Your task to perform on an android device: allow notifications from all sites in the chrome app Image 0: 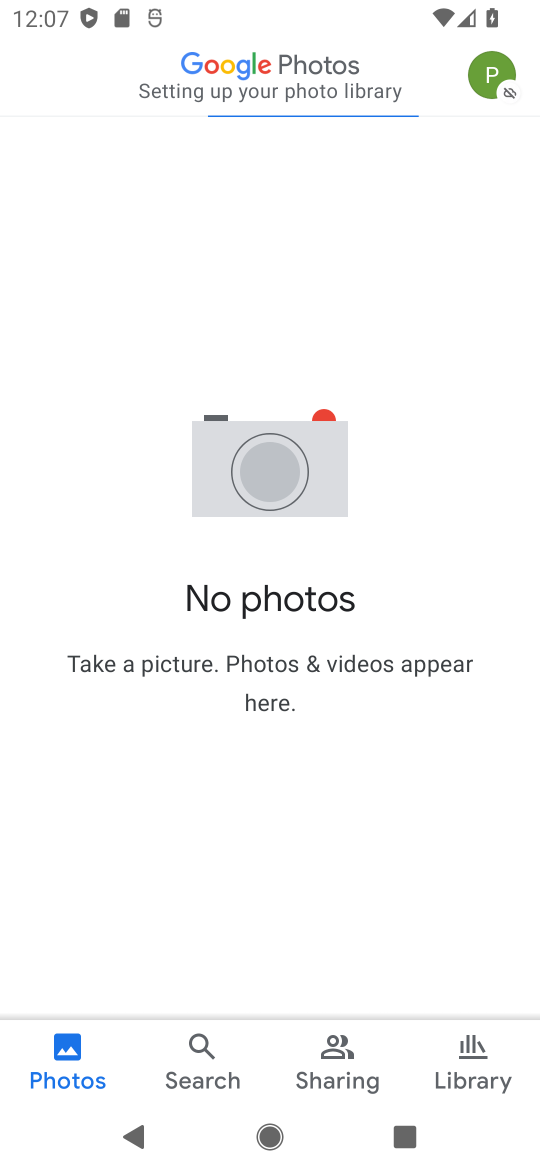
Step 0: press home button
Your task to perform on an android device: allow notifications from all sites in the chrome app Image 1: 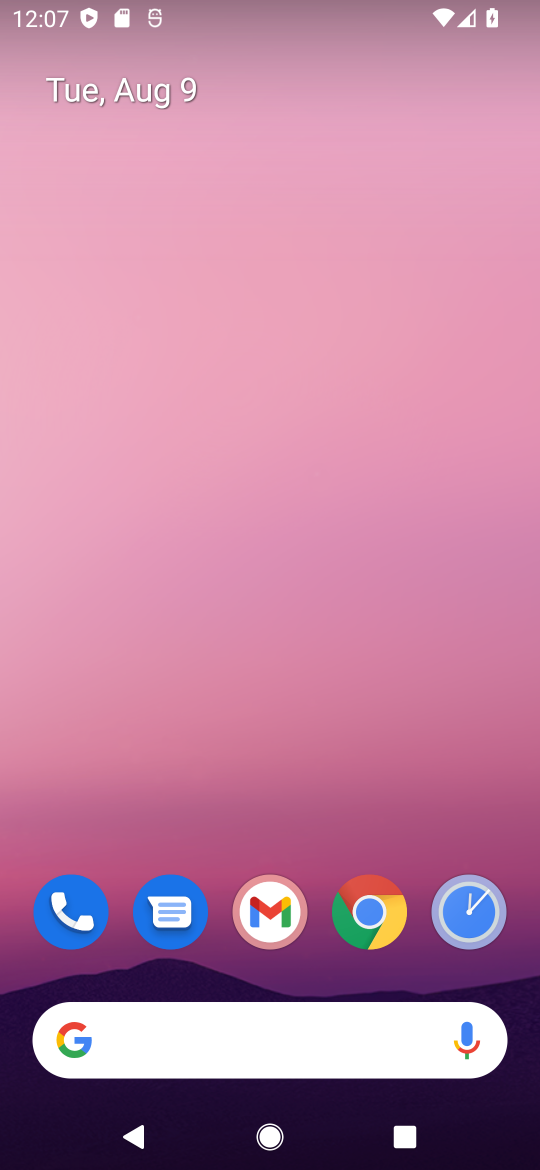
Step 1: drag from (317, 1012) to (315, 401)
Your task to perform on an android device: allow notifications from all sites in the chrome app Image 2: 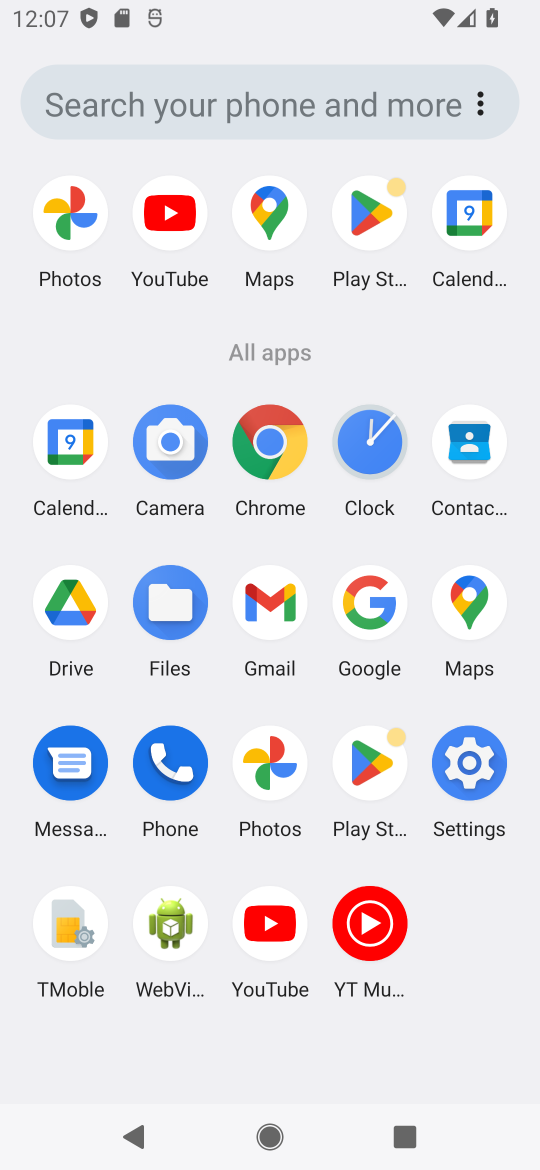
Step 2: click (282, 447)
Your task to perform on an android device: allow notifications from all sites in the chrome app Image 3: 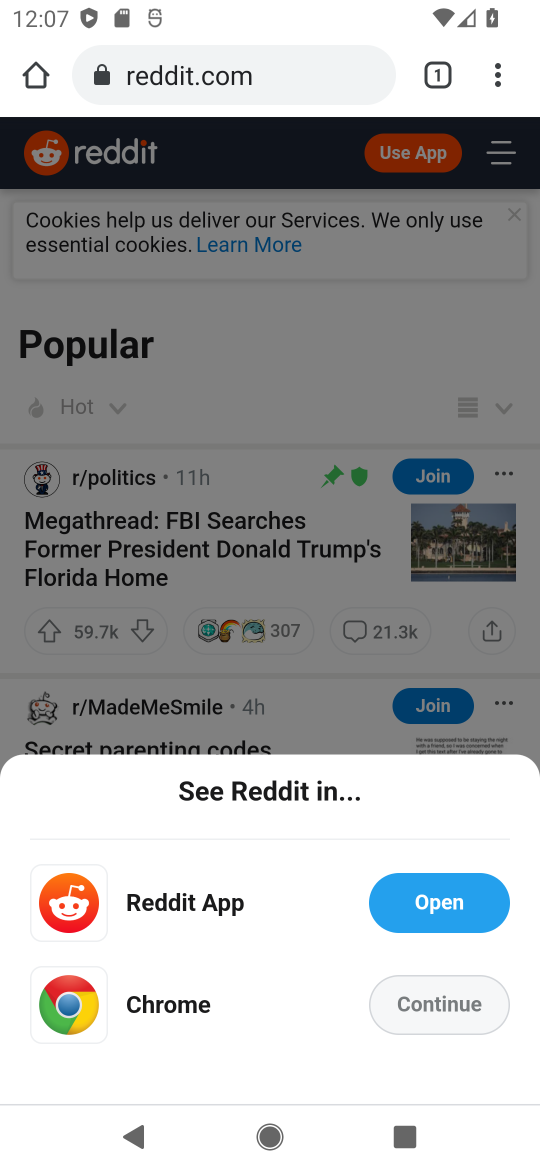
Step 3: click (495, 72)
Your task to perform on an android device: allow notifications from all sites in the chrome app Image 4: 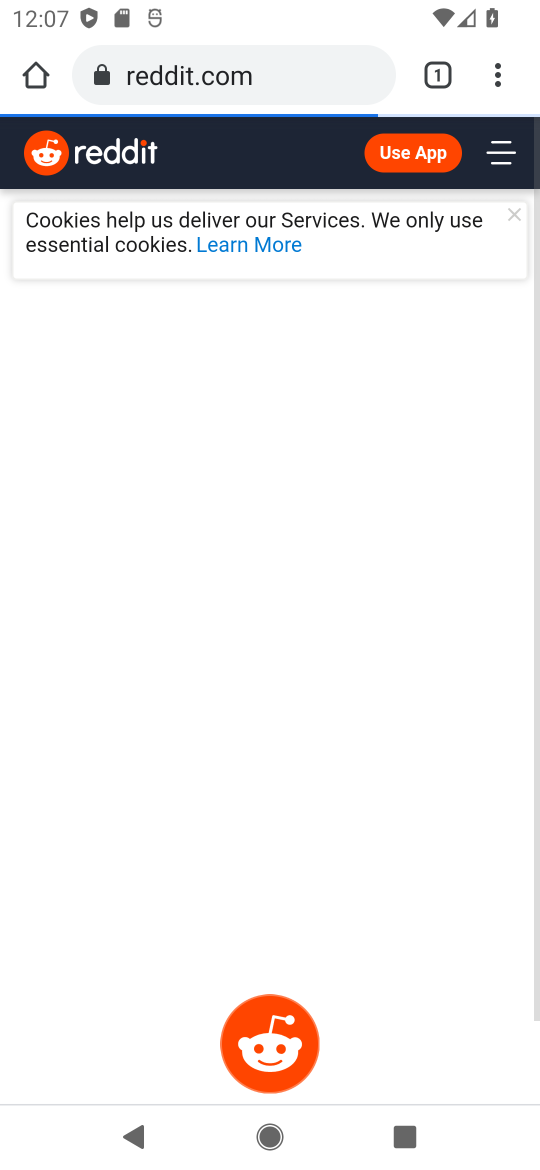
Step 4: click (501, 90)
Your task to perform on an android device: allow notifications from all sites in the chrome app Image 5: 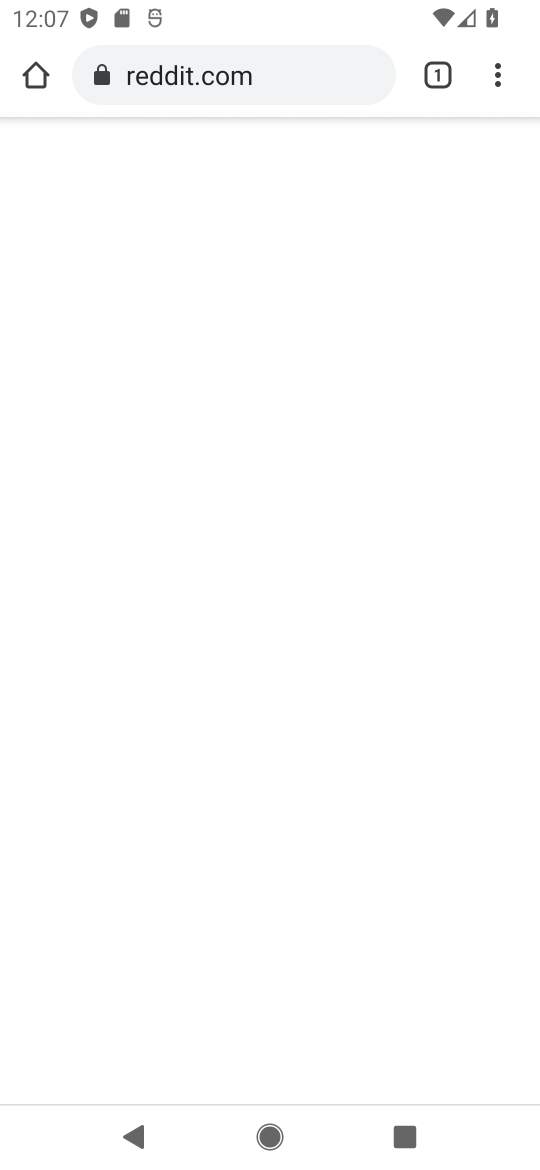
Step 5: click (489, 78)
Your task to perform on an android device: allow notifications from all sites in the chrome app Image 6: 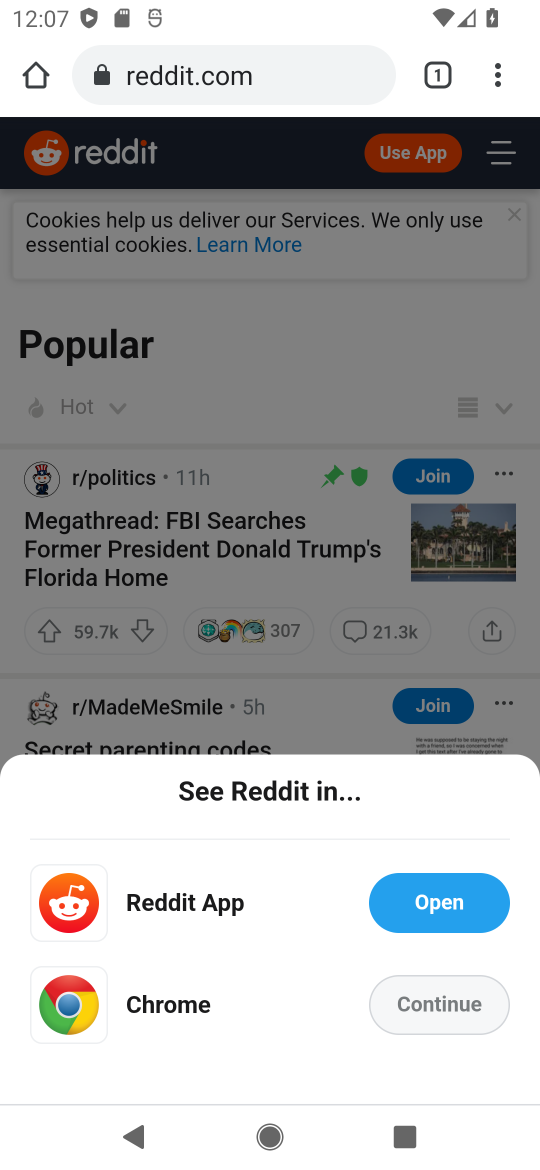
Step 6: click (502, 74)
Your task to perform on an android device: allow notifications from all sites in the chrome app Image 7: 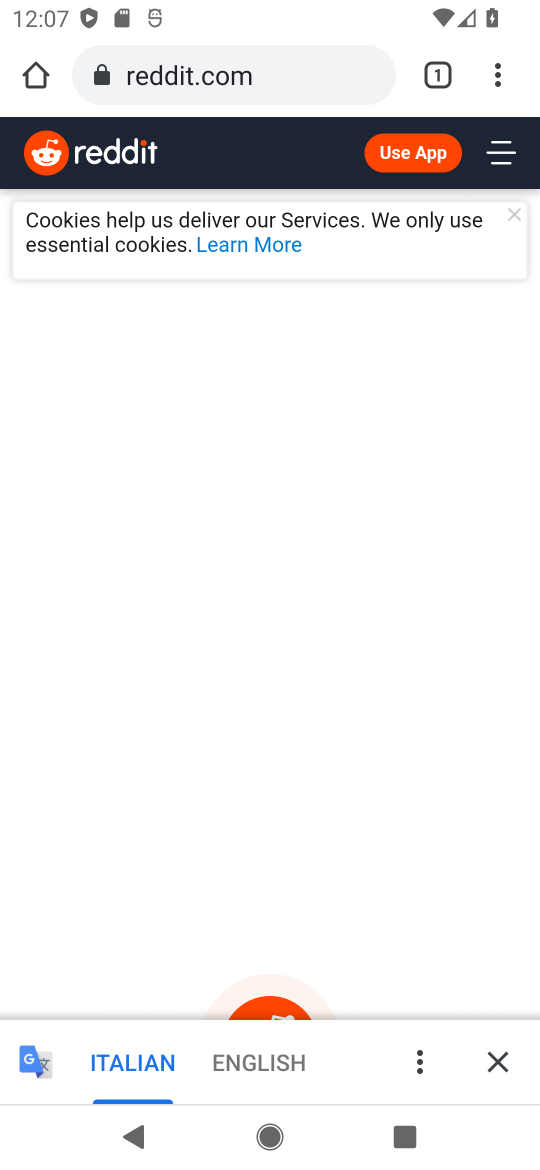
Step 7: click (495, 73)
Your task to perform on an android device: allow notifications from all sites in the chrome app Image 8: 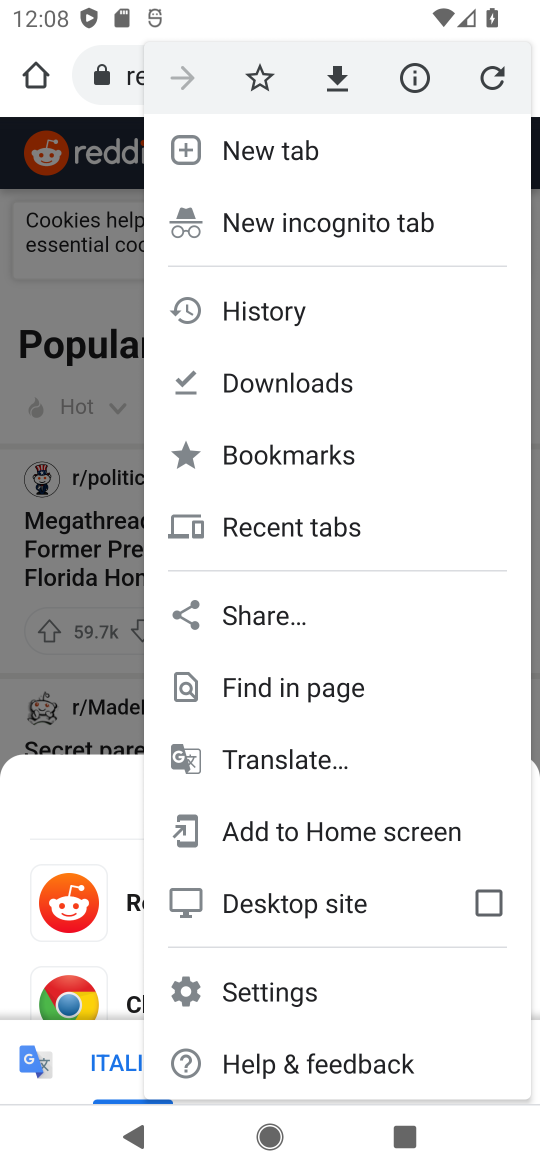
Step 8: click (287, 987)
Your task to perform on an android device: allow notifications from all sites in the chrome app Image 9: 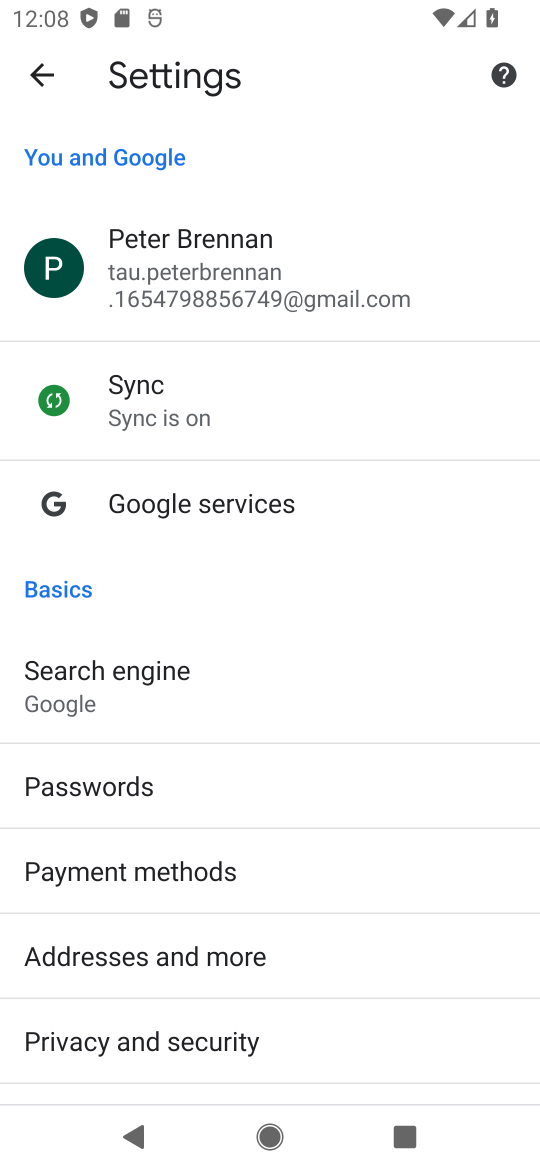
Step 9: drag from (232, 1047) to (288, 321)
Your task to perform on an android device: allow notifications from all sites in the chrome app Image 10: 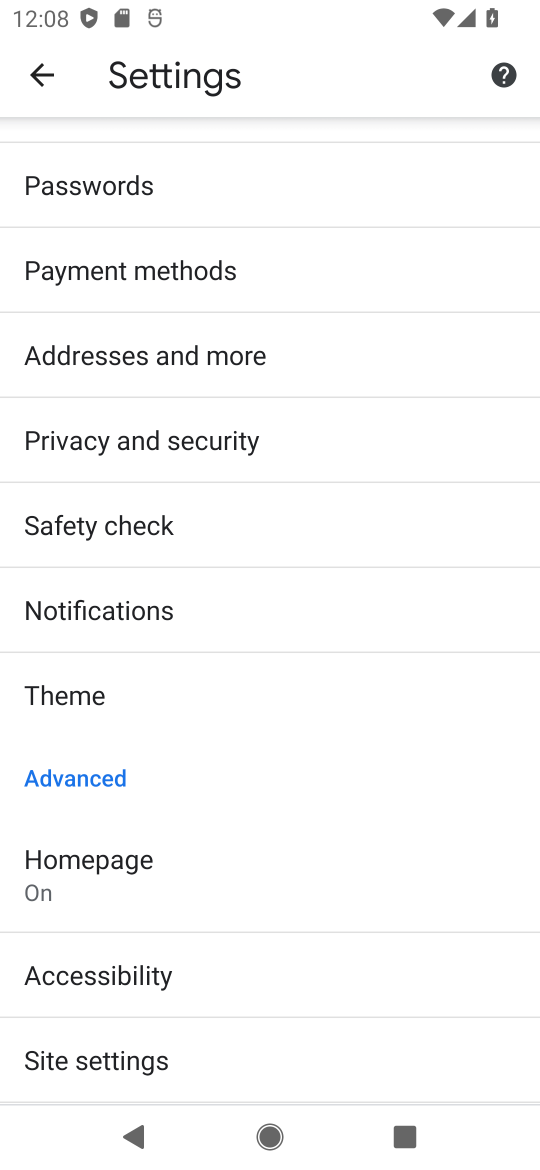
Step 10: click (112, 1055)
Your task to perform on an android device: allow notifications from all sites in the chrome app Image 11: 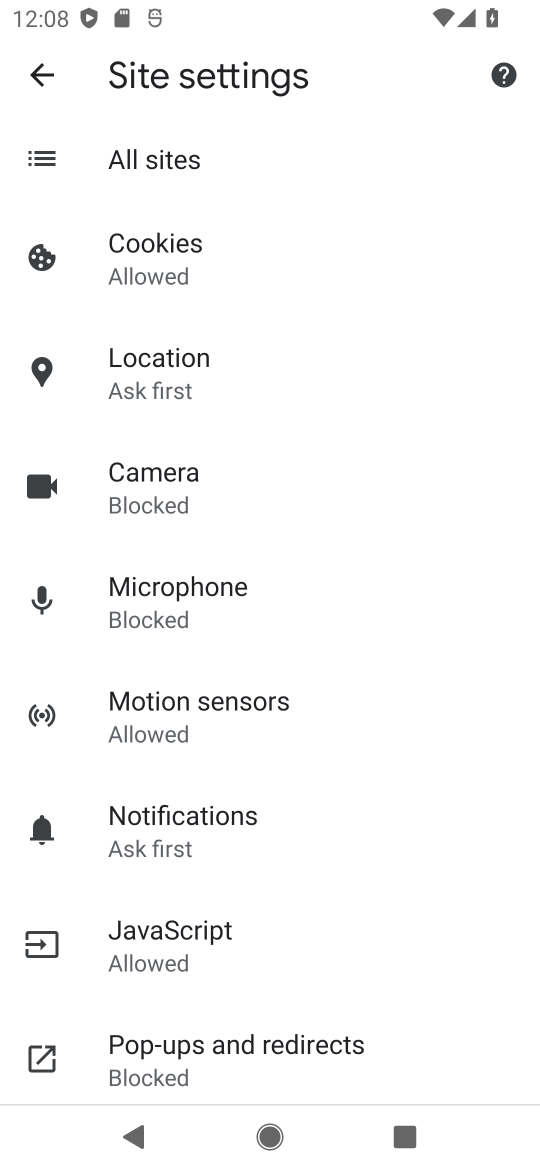
Step 11: click (139, 827)
Your task to perform on an android device: allow notifications from all sites in the chrome app Image 12: 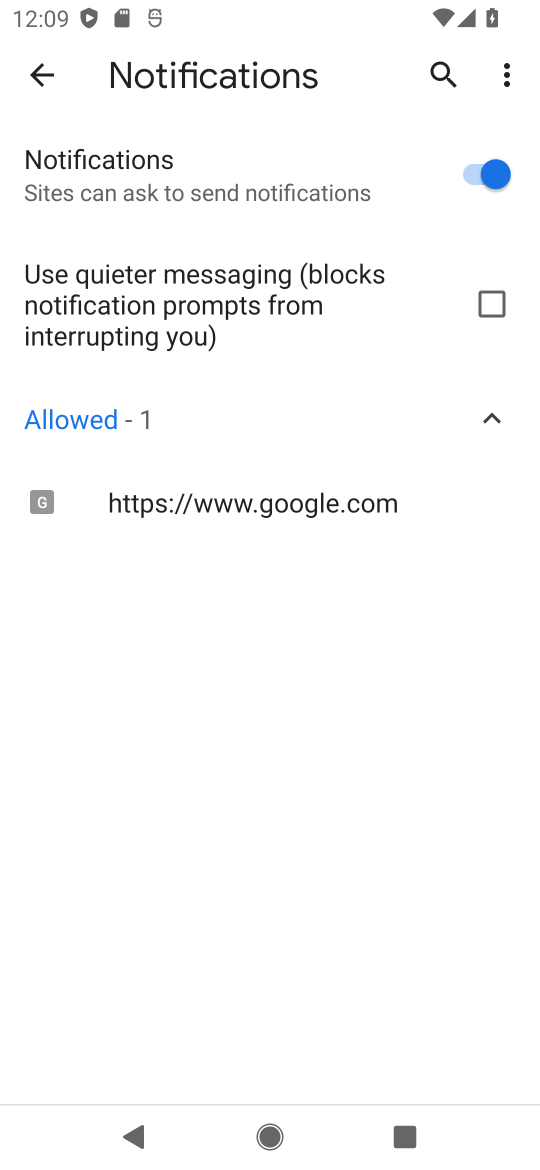
Step 12: task complete